Your task to perform on an android device: choose inbox layout in the gmail app Image 0: 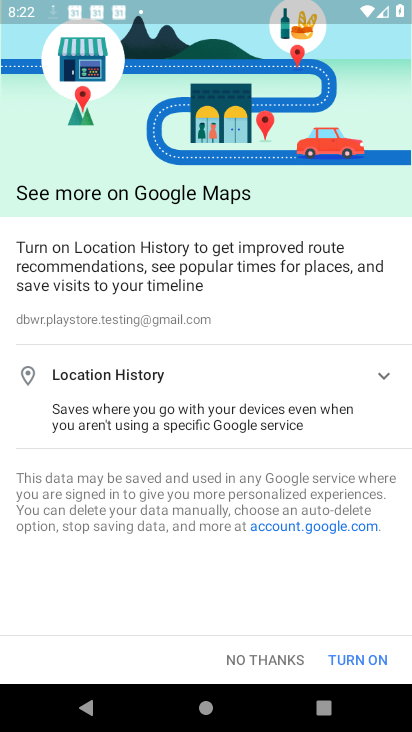
Step 0: press home button
Your task to perform on an android device: choose inbox layout in the gmail app Image 1: 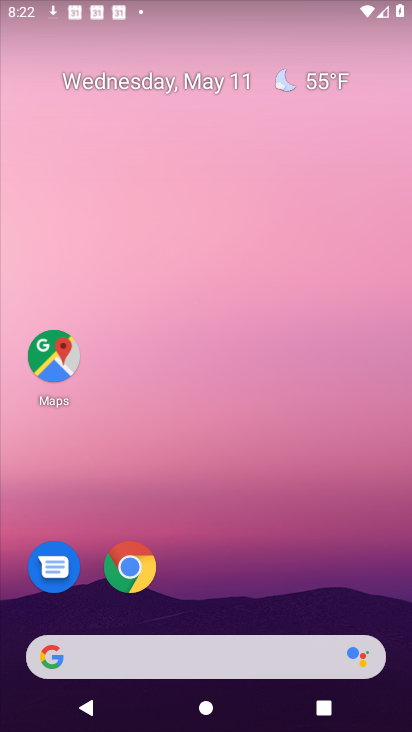
Step 1: drag from (290, 606) to (279, 99)
Your task to perform on an android device: choose inbox layout in the gmail app Image 2: 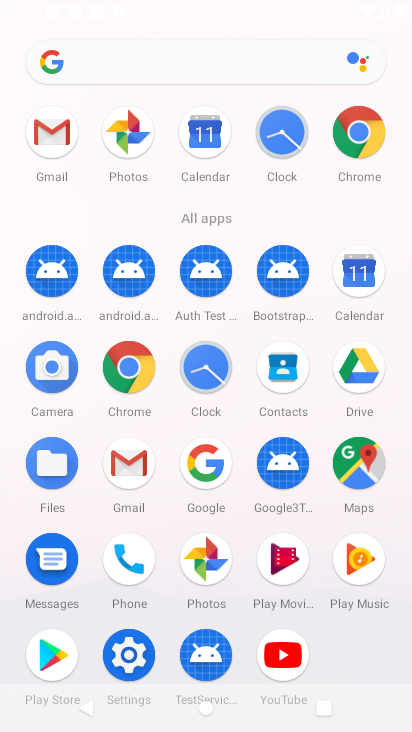
Step 2: click (128, 474)
Your task to perform on an android device: choose inbox layout in the gmail app Image 3: 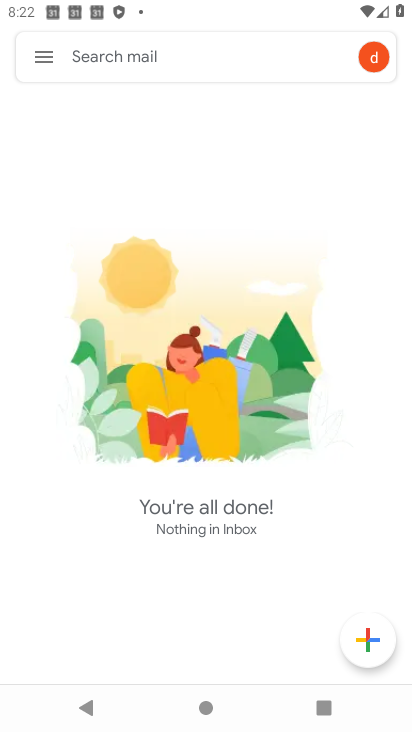
Step 3: click (45, 61)
Your task to perform on an android device: choose inbox layout in the gmail app Image 4: 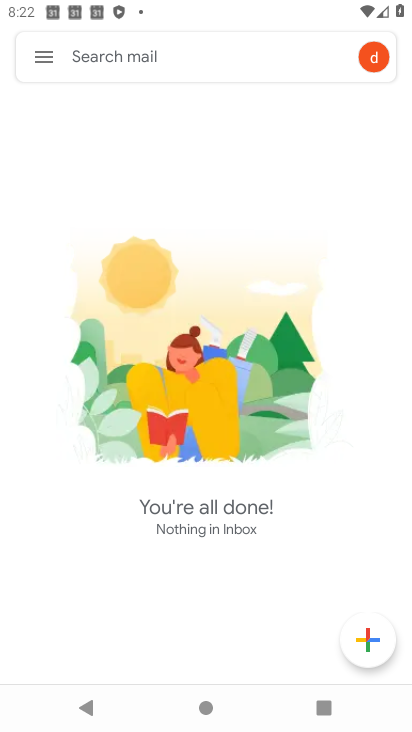
Step 4: click (45, 61)
Your task to perform on an android device: choose inbox layout in the gmail app Image 5: 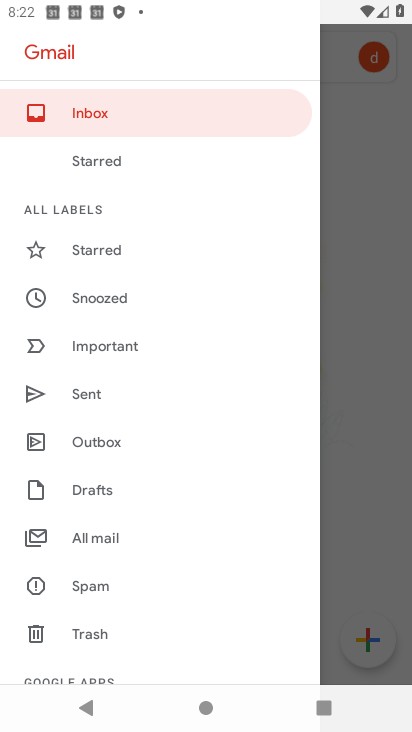
Step 5: drag from (217, 584) to (207, 170)
Your task to perform on an android device: choose inbox layout in the gmail app Image 6: 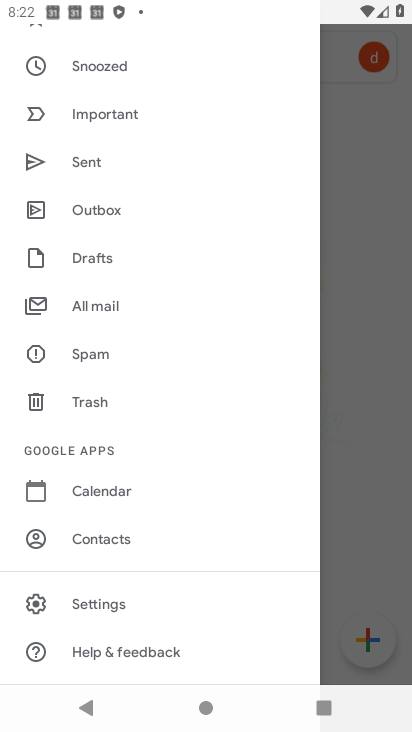
Step 6: click (108, 601)
Your task to perform on an android device: choose inbox layout in the gmail app Image 7: 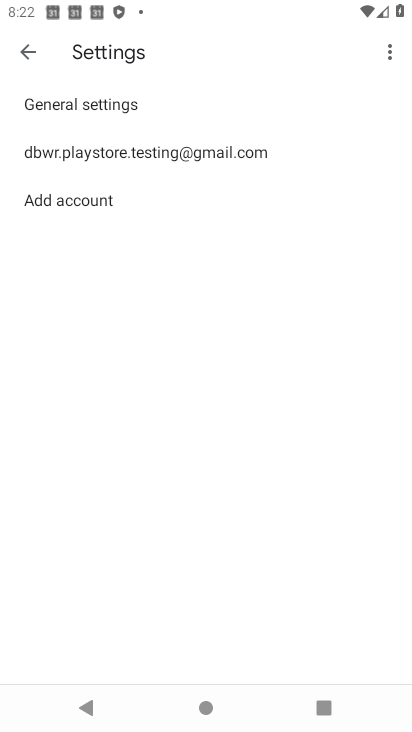
Step 7: click (202, 153)
Your task to perform on an android device: choose inbox layout in the gmail app Image 8: 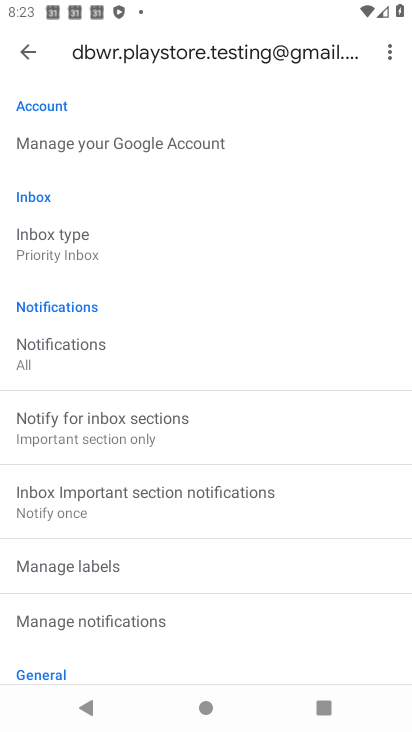
Step 8: click (197, 570)
Your task to perform on an android device: choose inbox layout in the gmail app Image 9: 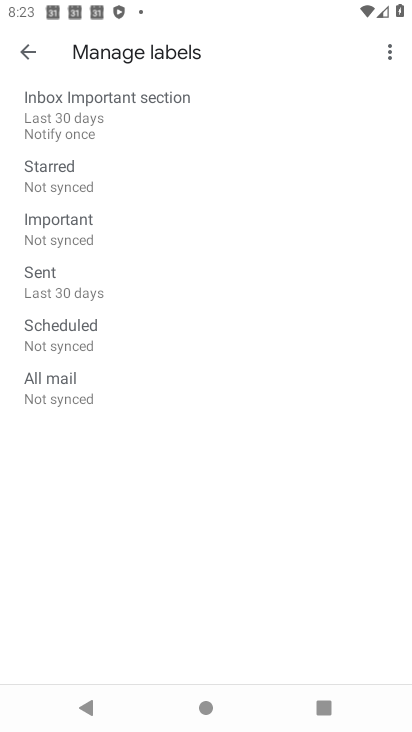
Step 9: press back button
Your task to perform on an android device: choose inbox layout in the gmail app Image 10: 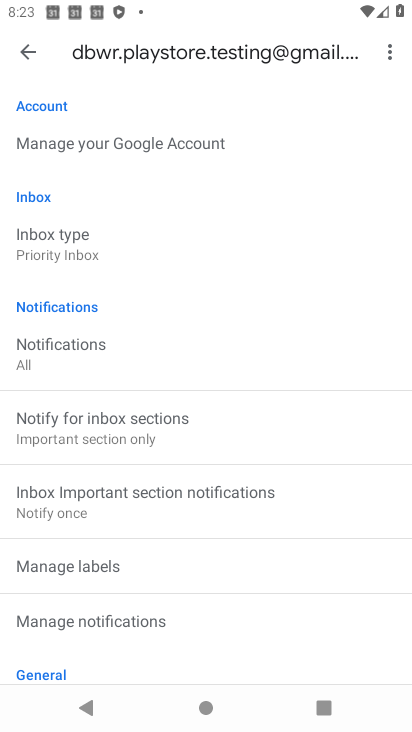
Step 10: click (88, 236)
Your task to perform on an android device: choose inbox layout in the gmail app Image 11: 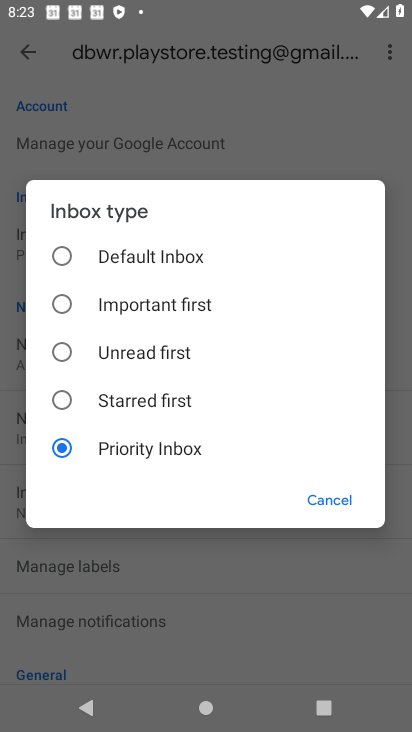
Step 11: click (61, 345)
Your task to perform on an android device: choose inbox layout in the gmail app Image 12: 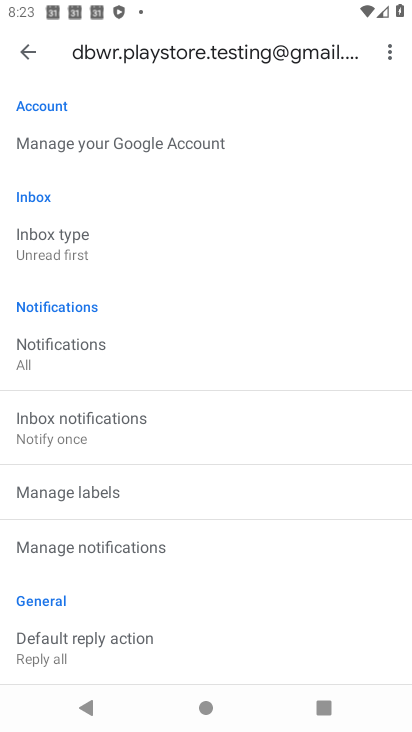
Step 12: task complete